Your task to perform on an android device: Open calendar and show me the second week of next month Image 0: 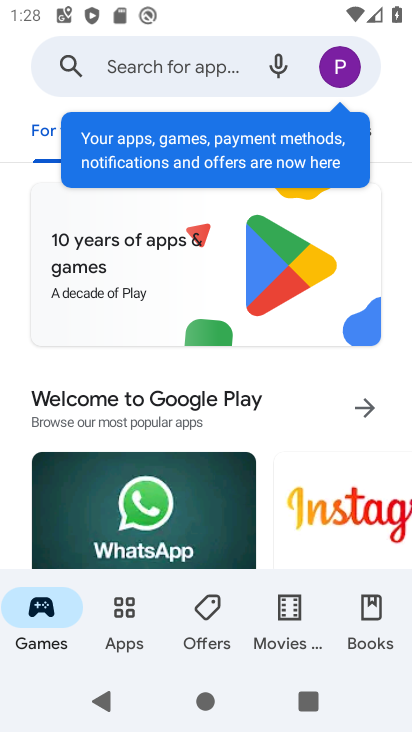
Step 0: press home button
Your task to perform on an android device: Open calendar and show me the second week of next month Image 1: 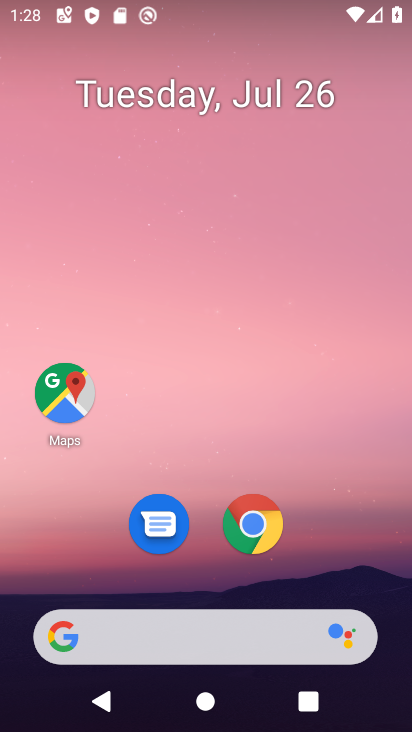
Step 1: drag from (346, 556) to (364, 65)
Your task to perform on an android device: Open calendar and show me the second week of next month Image 2: 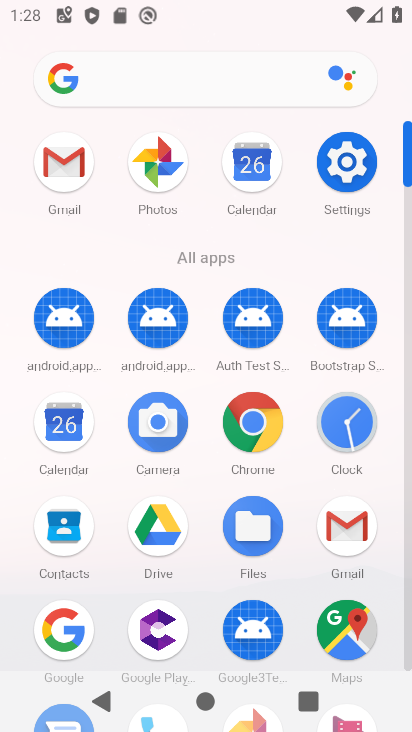
Step 2: click (248, 161)
Your task to perform on an android device: Open calendar and show me the second week of next month Image 3: 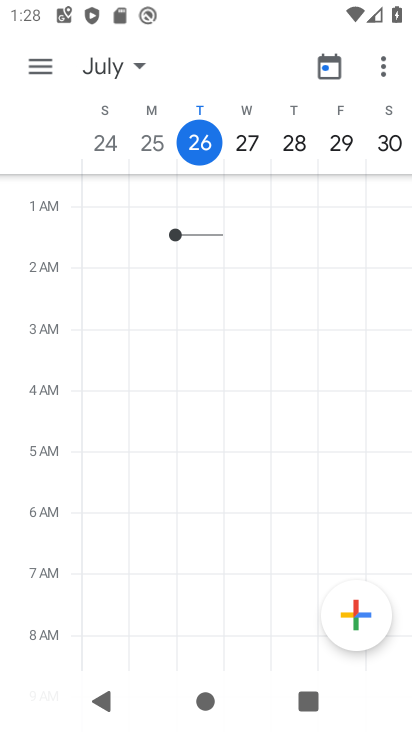
Step 3: task complete